Your task to perform on an android device: Go to location settings Image 0: 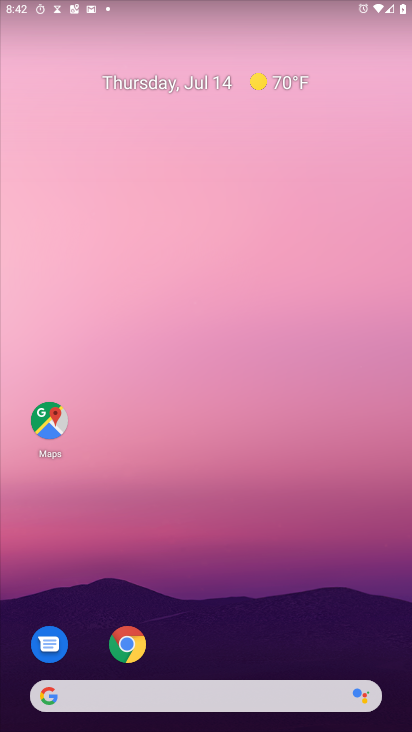
Step 0: drag from (221, 695) to (304, 242)
Your task to perform on an android device: Go to location settings Image 1: 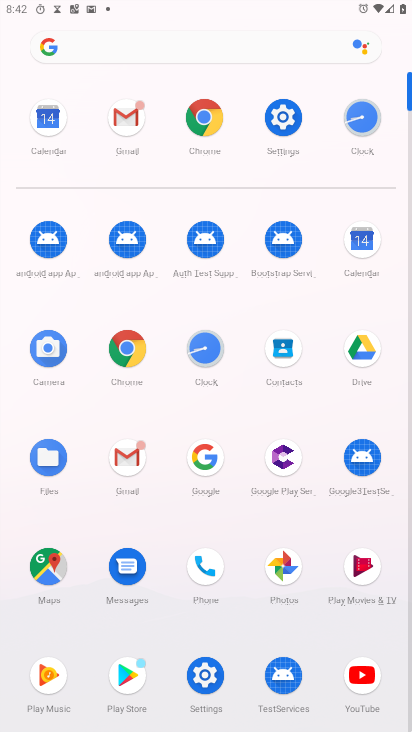
Step 1: click (275, 118)
Your task to perform on an android device: Go to location settings Image 2: 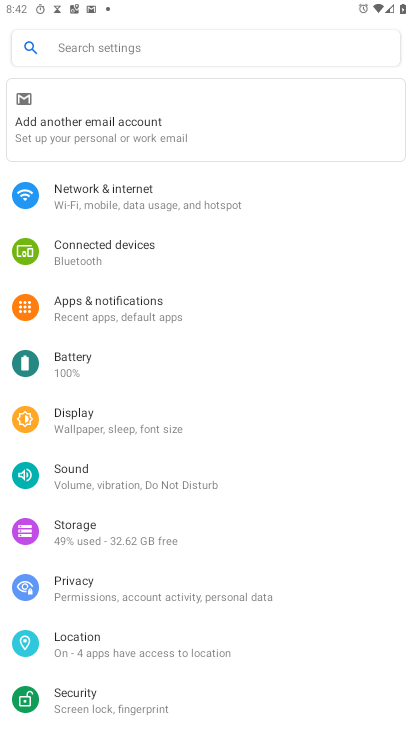
Step 2: click (75, 642)
Your task to perform on an android device: Go to location settings Image 3: 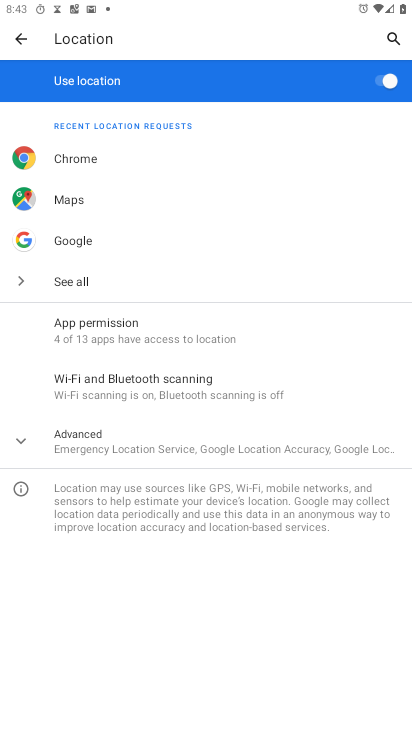
Step 3: task complete